Your task to perform on an android device: Search for Mexican restaurants on Maps Image 0: 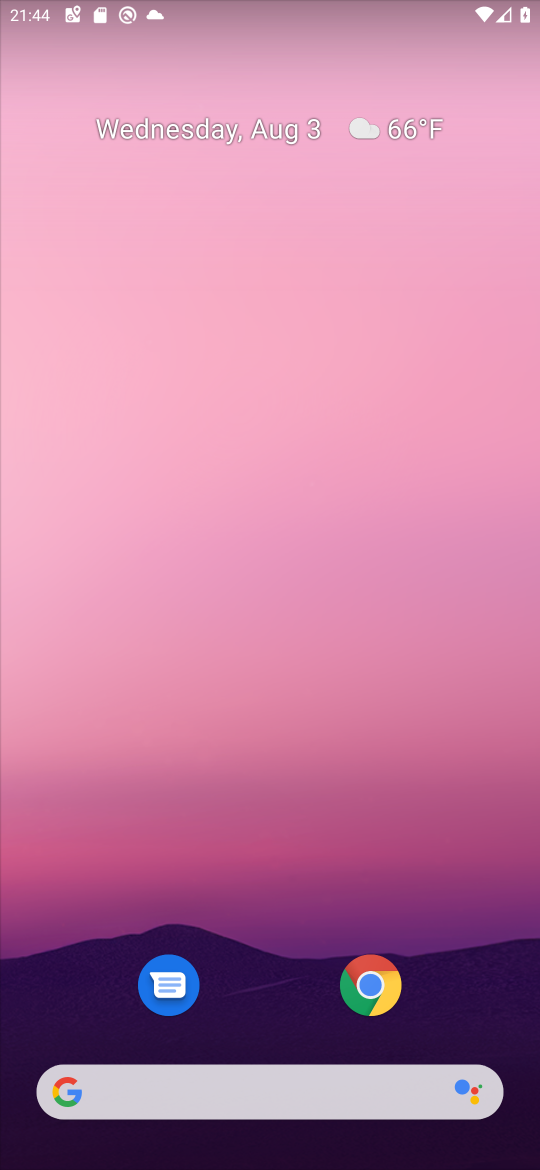
Step 0: drag from (261, 978) to (174, 73)
Your task to perform on an android device: Search for Mexican restaurants on Maps Image 1: 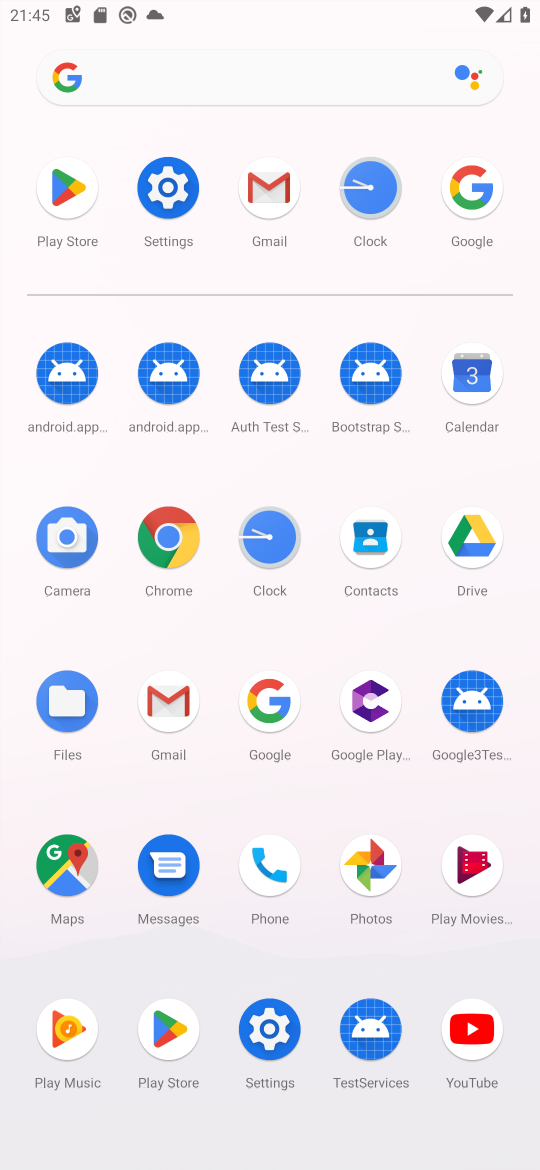
Step 1: click (56, 873)
Your task to perform on an android device: Search for Mexican restaurants on Maps Image 2: 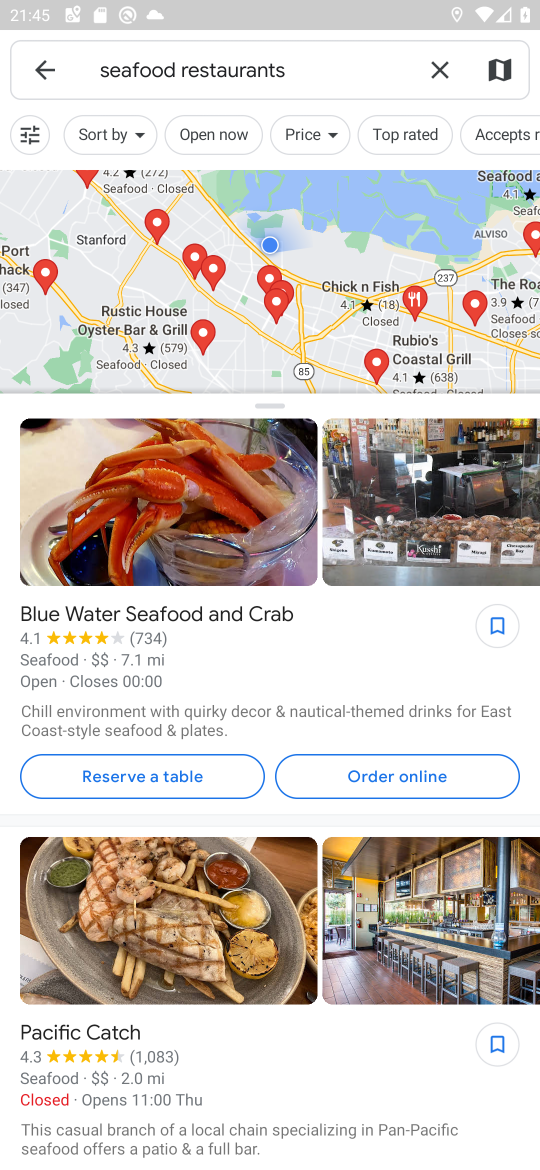
Step 2: click (423, 77)
Your task to perform on an android device: Search for Mexican restaurants on Maps Image 3: 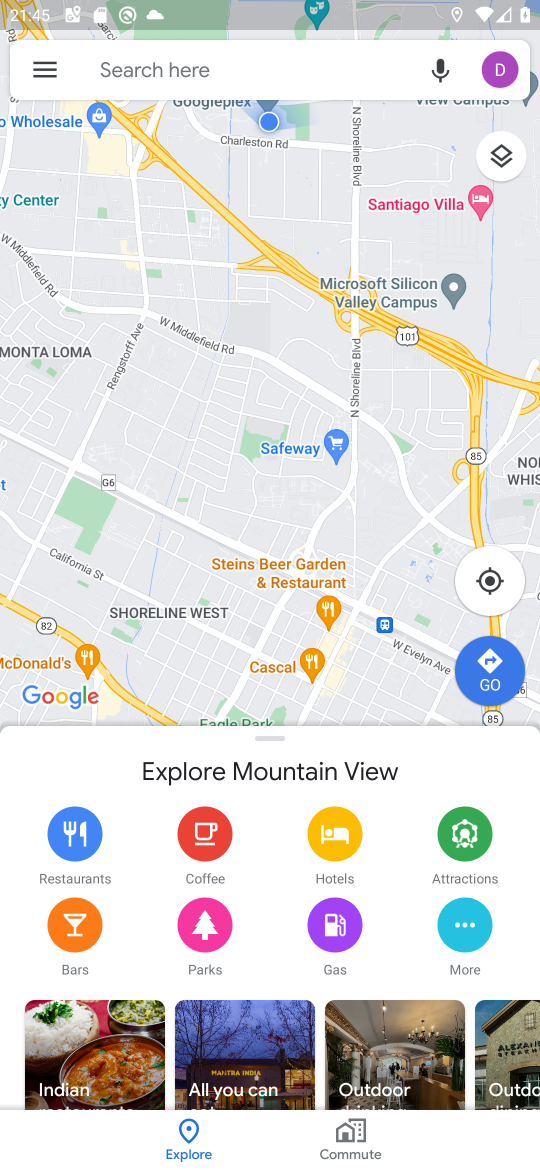
Step 3: click (140, 53)
Your task to perform on an android device: Search for Mexican restaurants on Maps Image 4: 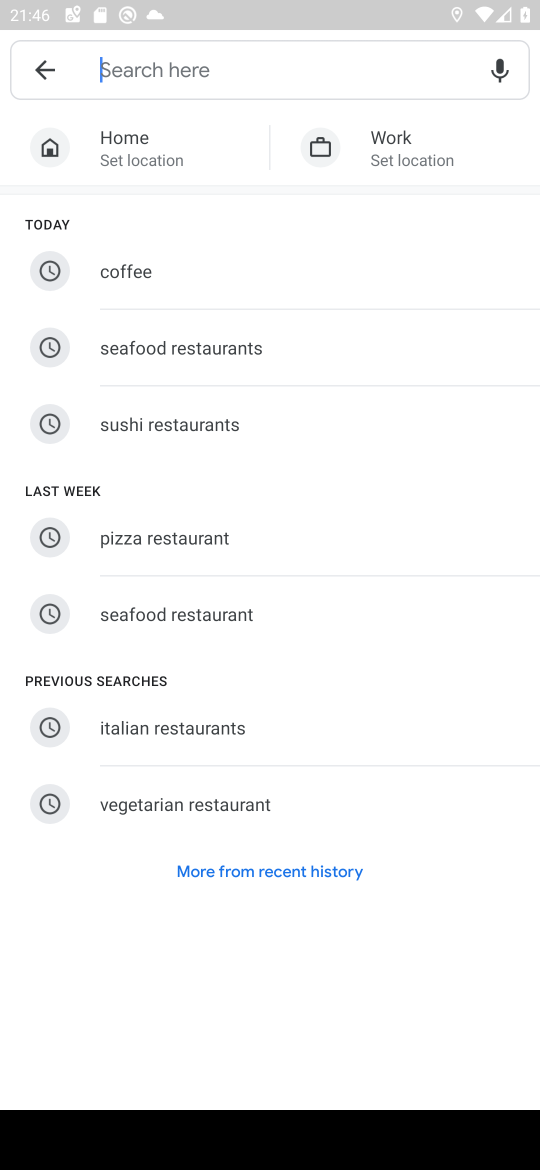
Step 4: type "Mexican restaurants"
Your task to perform on an android device: Search for Mexican restaurants on Maps Image 5: 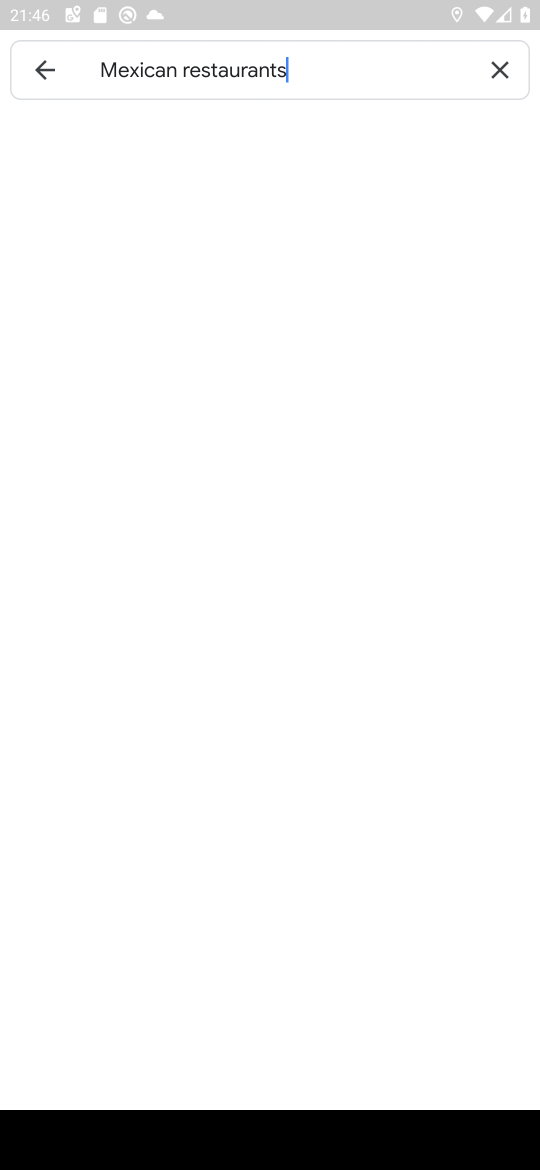
Step 5: type ""
Your task to perform on an android device: Search for Mexican restaurants on Maps Image 6: 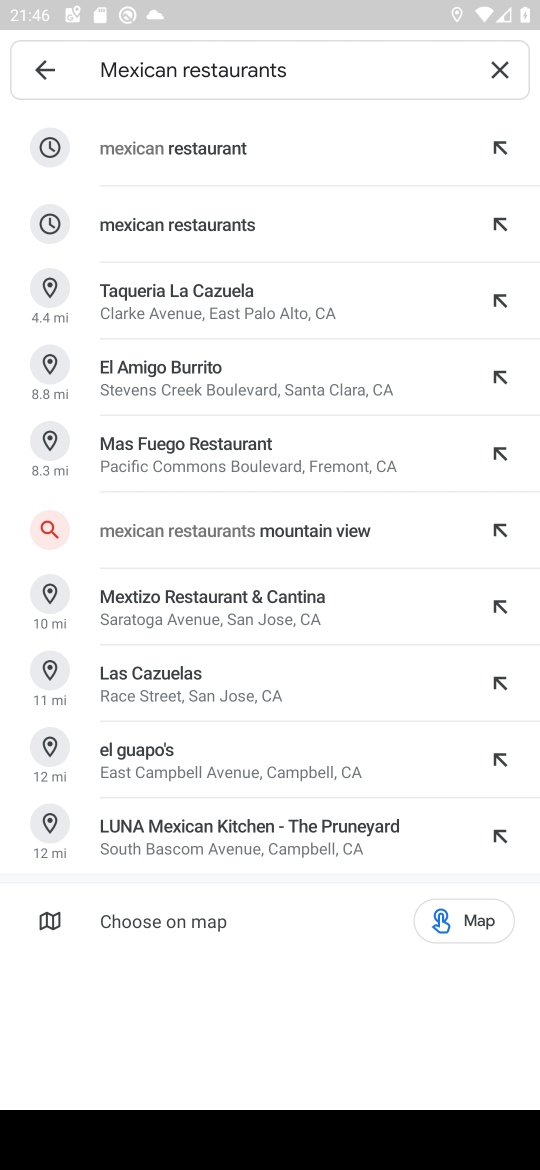
Step 6: click (221, 228)
Your task to perform on an android device: Search for Mexican restaurants on Maps Image 7: 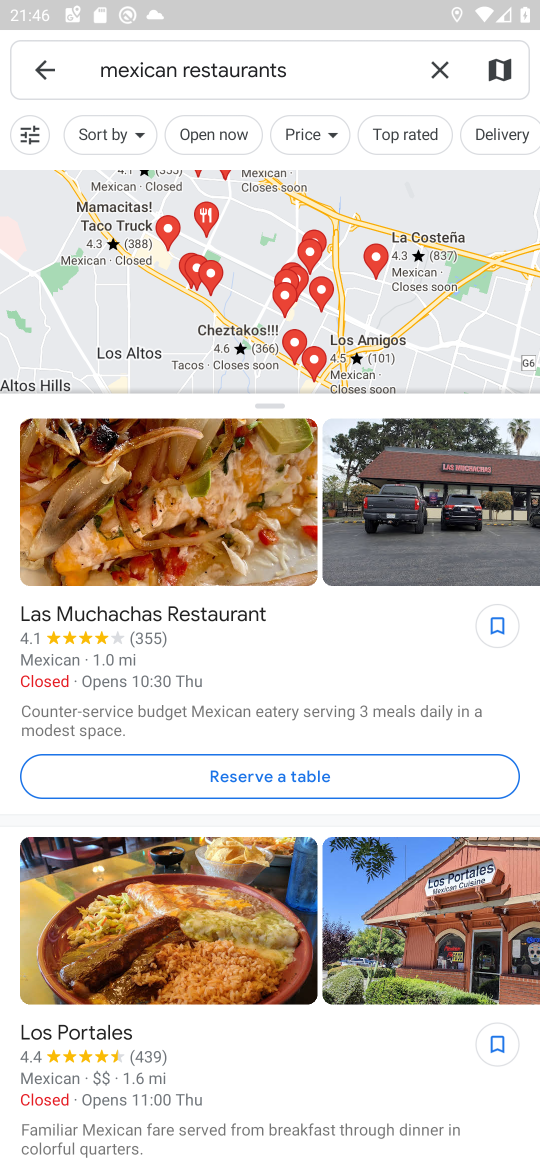
Step 7: task complete